Your task to perform on an android device: open chrome and create a bookmark for the current page Image 0: 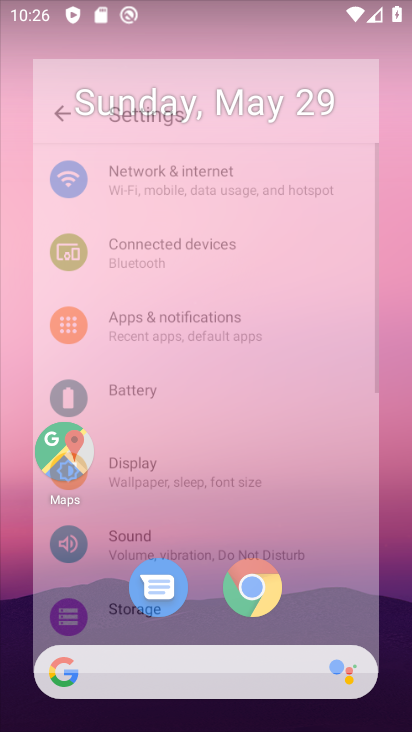
Step 0: drag from (343, 600) to (265, 112)
Your task to perform on an android device: open chrome and create a bookmark for the current page Image 1: 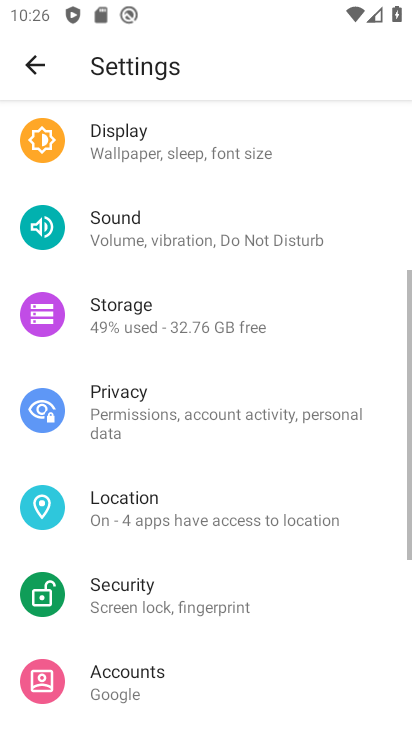
Step 1: press home button
Your task to perform on an android device: open chrome and create a bookmark for the current page Image 2: 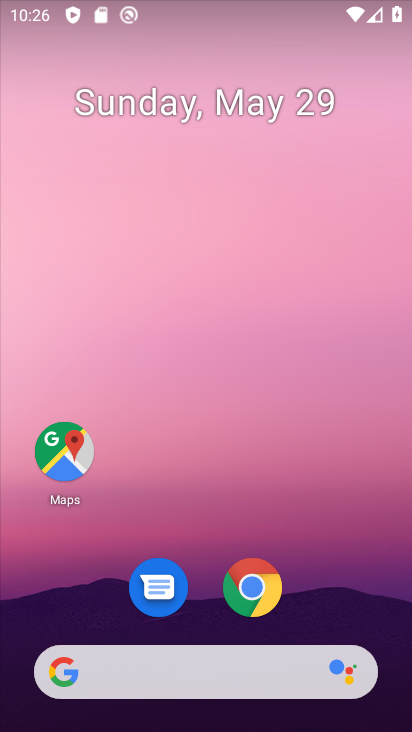
Step 2: click (277, 581)
Your task to perform on an android device: open chrome and create a bookmark for the current page Image 3: 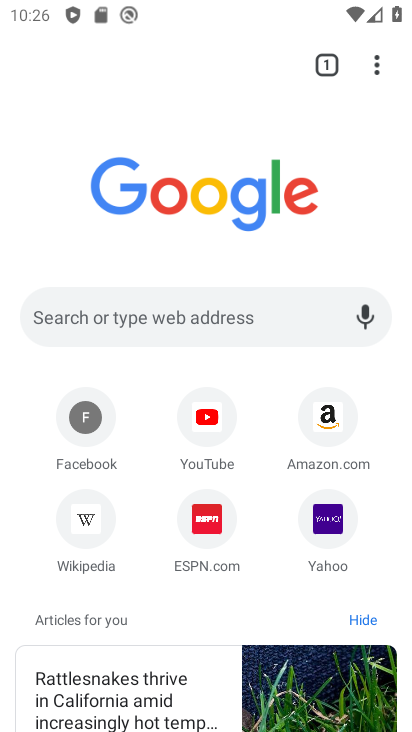
Step 3: click (383, 92)
Your task to perform on an android device: open chrome and create a bookmark for the current page Image 4: 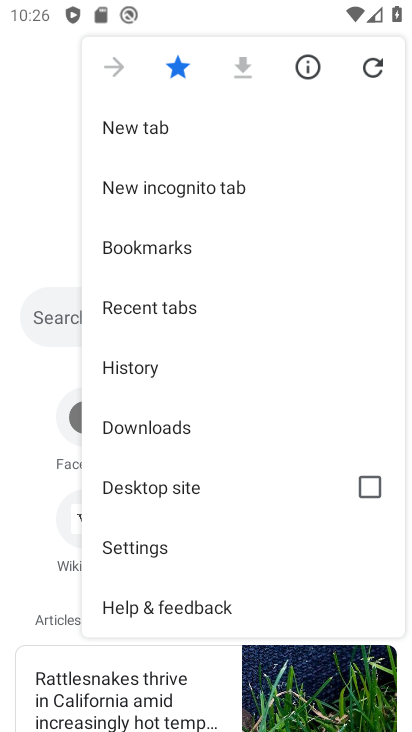
Step 4: task complete